Your task to perform on an android device: open a bookmark in the chrome app Image 0: 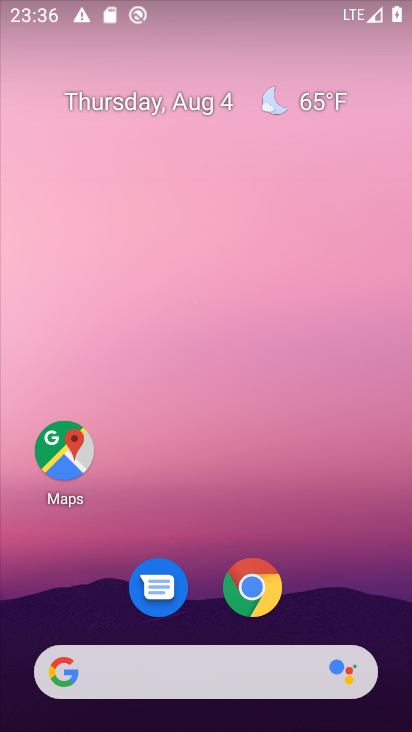
Step 0: drag from (227, 659) to (236, 314)
Your task to perform on an android device: open a bookmark in the chrome app Image 1: 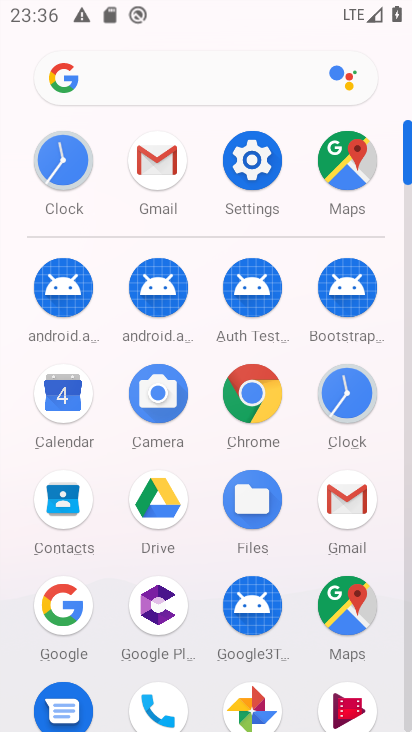
Step 1: click (258, 389)
Your task to perform on an android device: open a bookmark in the chrome app Image 2: 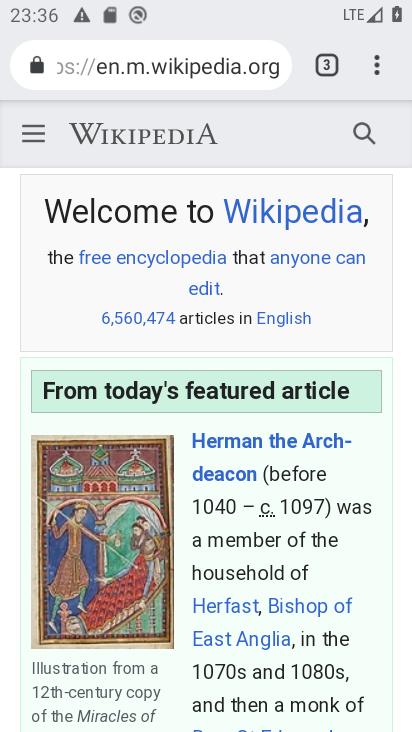
Step 2: click (368, 54)
Your task to perform on an android device: open a bookmark in the chrome app Image 3: 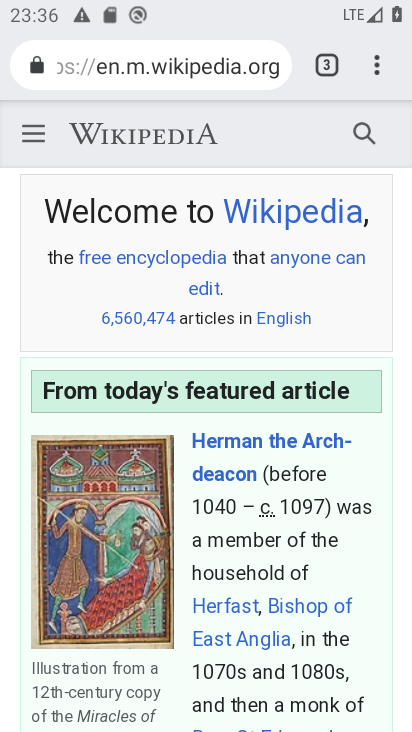
Step 3: click (383, 74)
Your task to perform on an android device: open a bookmark in the chrome app Image 4: 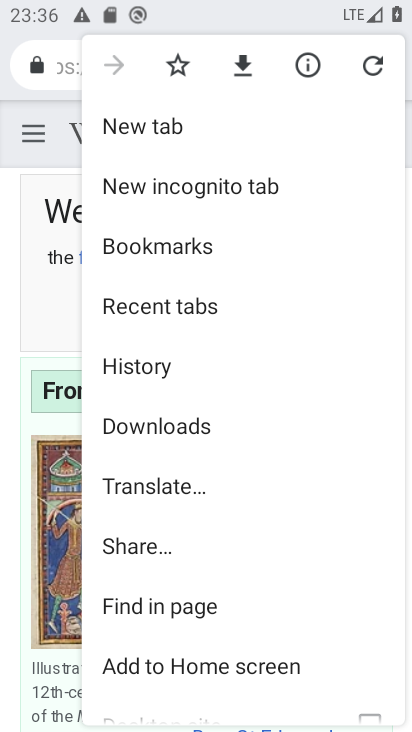
Step 4: click (139, 239)
Your task to perform on an android device: open a bookmark in the chrome app Image 5: 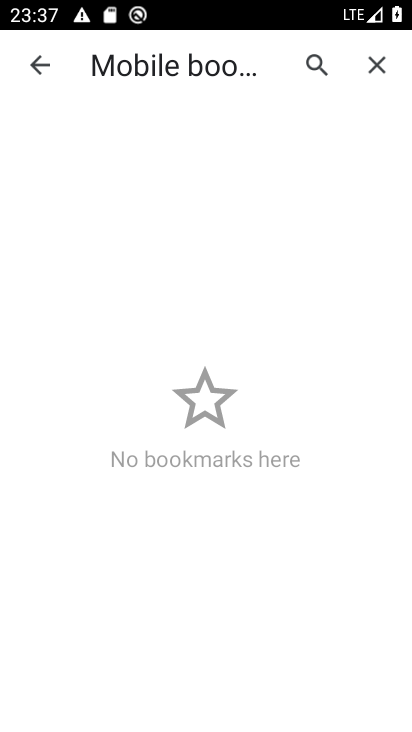
Step 5: task complete